Your task to perform on an android device: Open Chrome and go to settings Image 0: 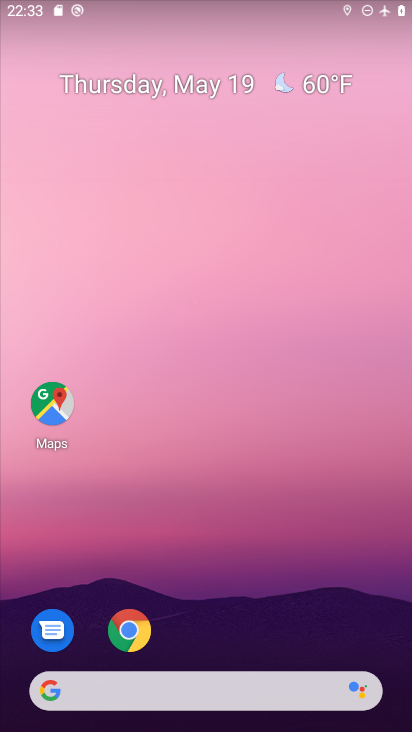
Step 0: click (124, 634)
Your task to perform on an android device: Open Chrome and go to settings Image 1: 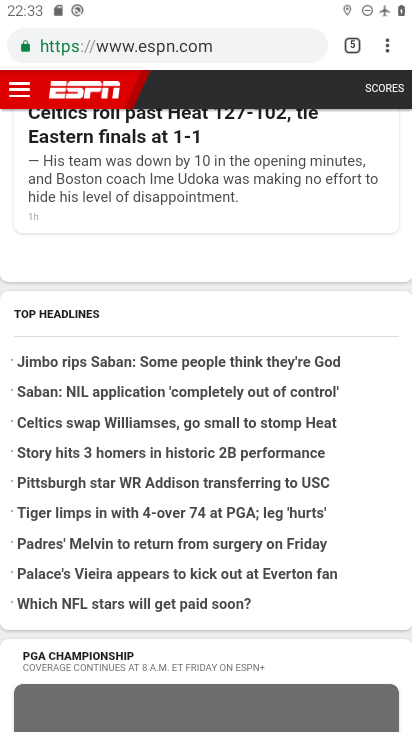
Step 1: click (383, 45)
Your task to perform on an android device: Open Chrome and go to settings Image 2: 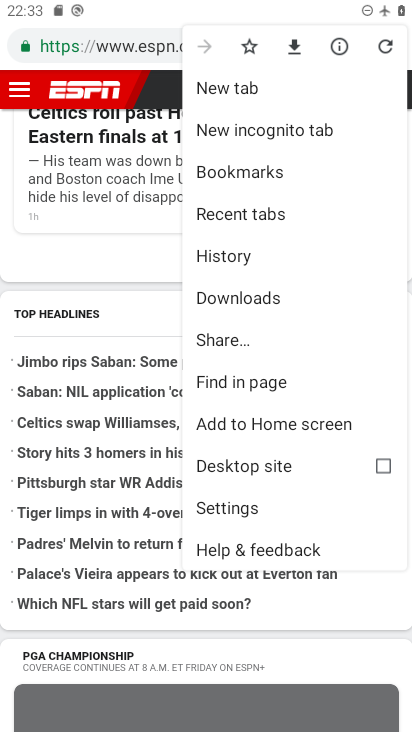
Step 2: click (242, 505)
Your task to perform on an android device: Open Chrome and go to settings Image 3: 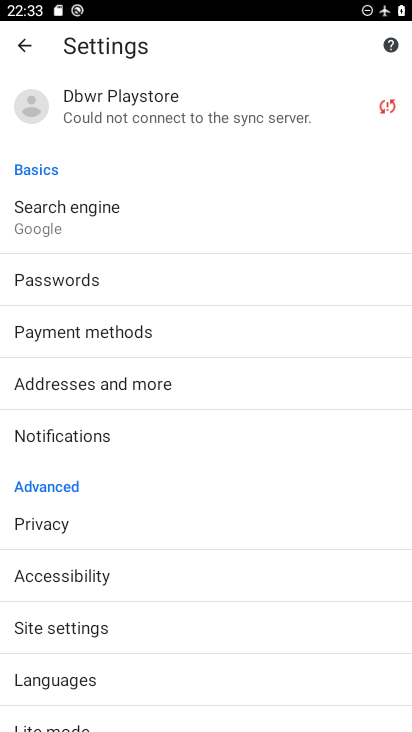
Step 3: task complete